Your task to perform on an android device: Open Google Chrome and click the shortcut for Amazon.com Image 0: 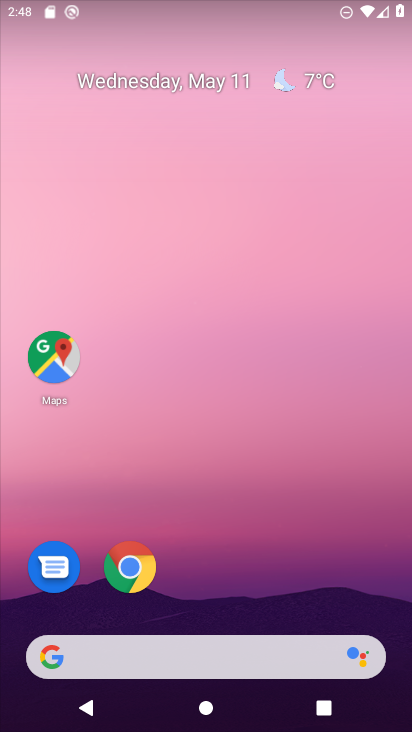
Step 0: click (132, 568)
Your task to perform on an android device: Open Google Chrome and click the shortcut for Amazon.com Image 1: 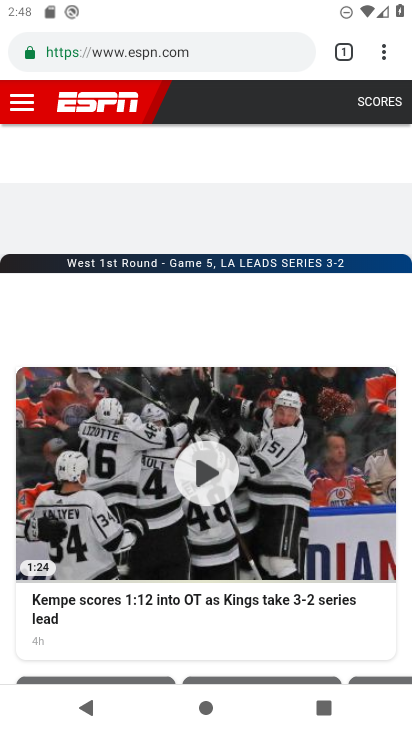
Step 1: click (342, 57)
Your task to perform on an android device: Open Google Chrome and click the shortcut for Amazon.com Image 2: 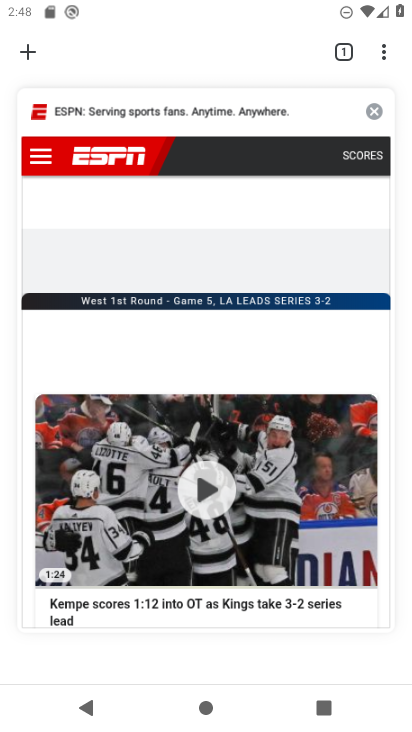
Step 2: click (374, 107)
Your task to perform on an android device: Open Google Chrome and click the shortcut for Amazon.com Image 3: 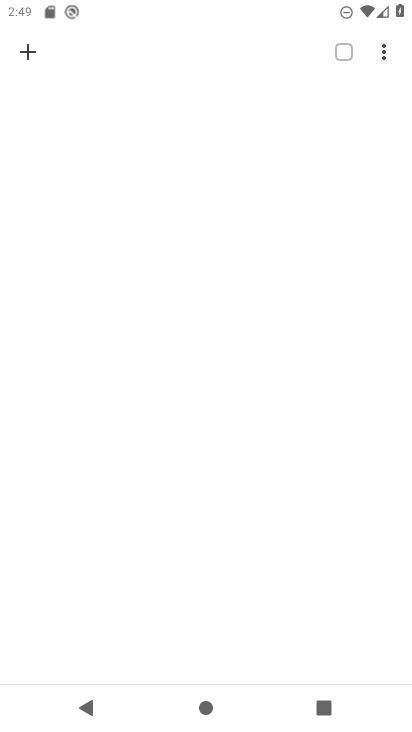
Step 3: click (27, 53)
Your task to perform on an android device: Open Google Chrome and click the shortcut for Amazon.com Image 4: 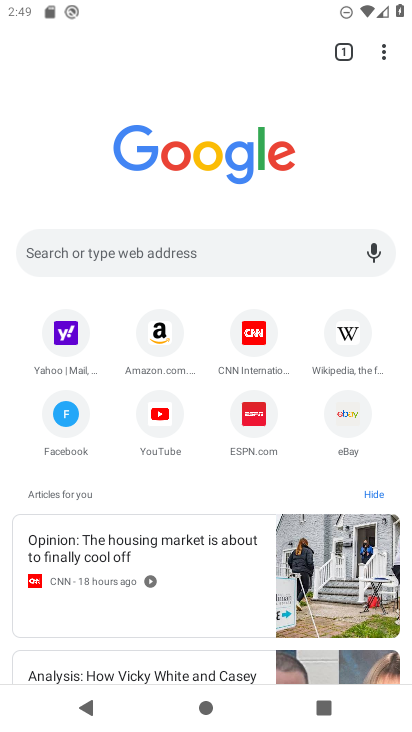
Step 4: click (154, 348)
Your task to perform on an android device: Open Google Chrome and click the shortcut for Amazon.com Image 5: 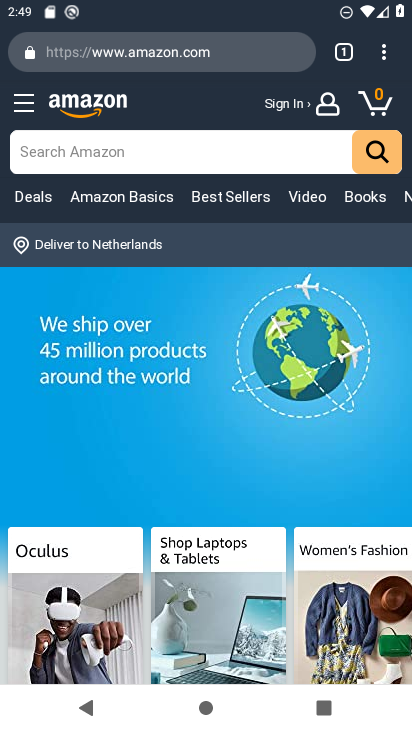
Step 5: task complete